Your task to perform on an android device: Add "panasonic triple a" to the cart on amazon.com, then select checkout. Image 0: 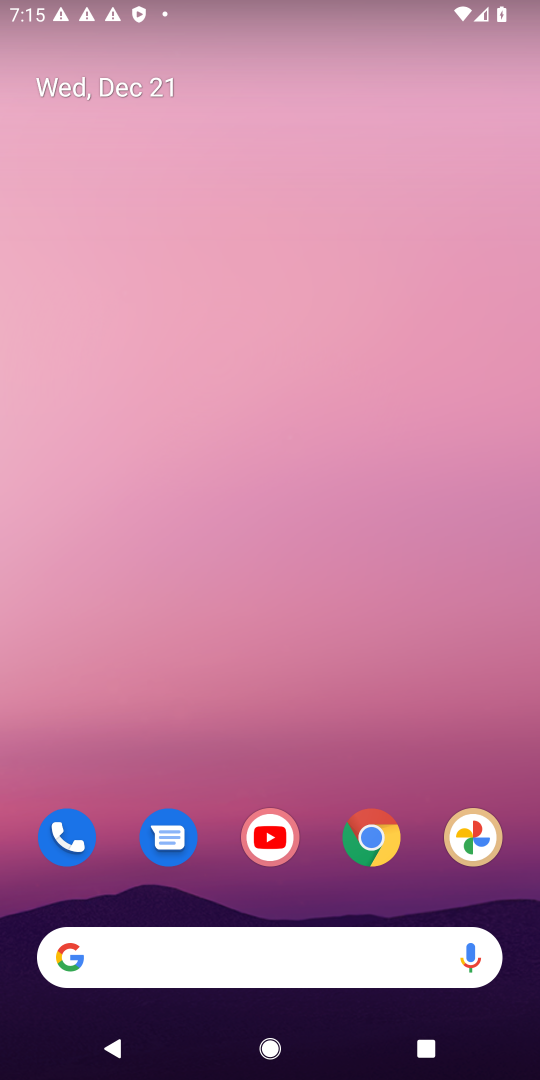
Step 0: drag from (200, 853) to (142, 259)
Your task to perform on an android device: Add "panasonic triple a" to the cart on amazon.com, then select checkout. Image 1: 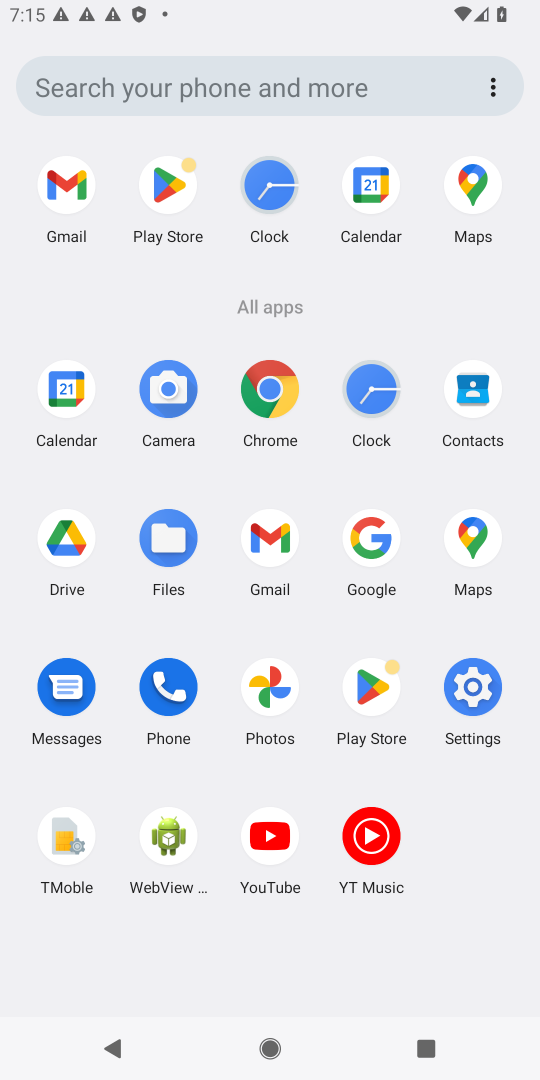
Step 1: click (371, 533)
Your task to perform on an android device: Add "panasonic triple a" to the cart on amazon.com, then select checkout. Image 2: 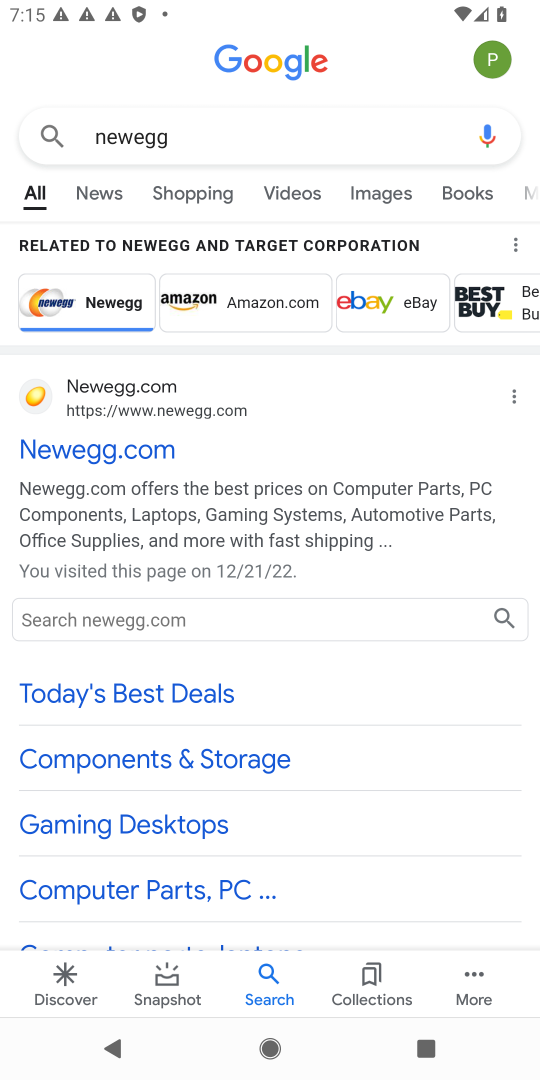
Step 2: click (157, 149)
Your task to perform on an android device: Add "panasonic triple a" to the cart on amazon.com, then select checkout. Image 3: 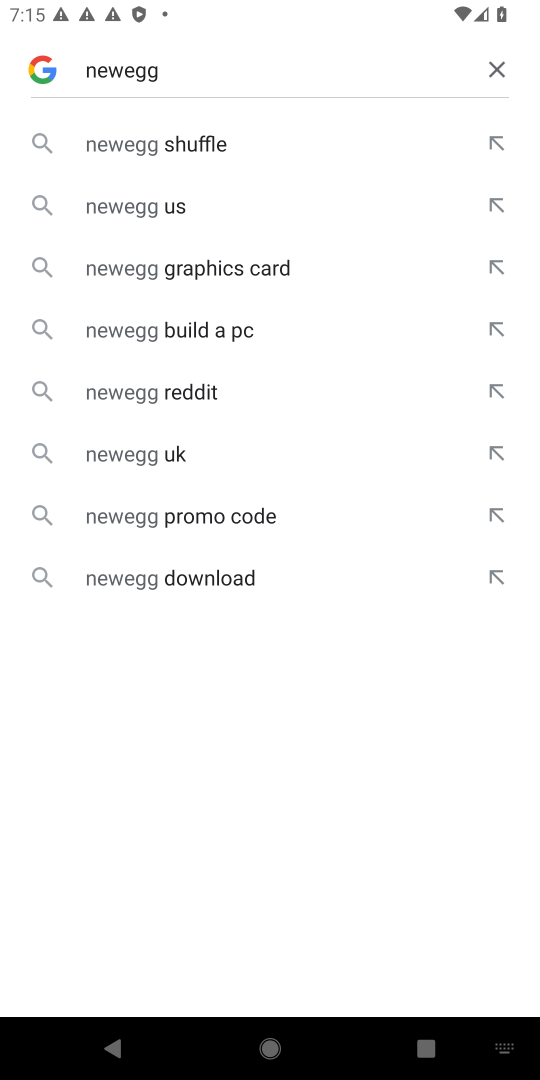
Step 3: click (503, 75)
Your task to perform on an android device: Add "panasonic triple a" to the cart on amazon.com, then select checkout. Image 4: 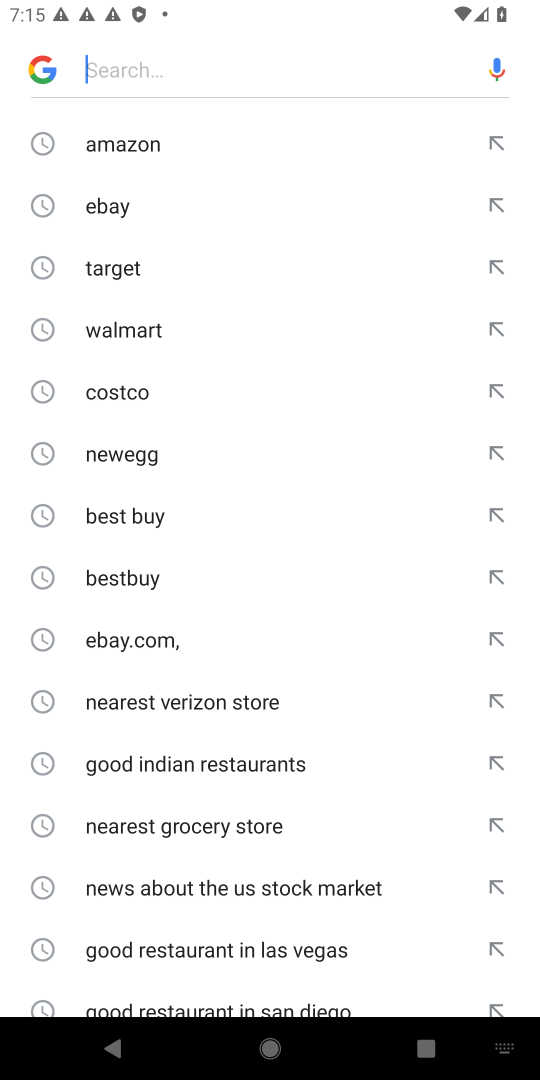
Step 4: click (124, 137)
Your task to perform on an android device: Add "panasonic triple a" to the cart on amazon.com, then select checkout. Image 5: 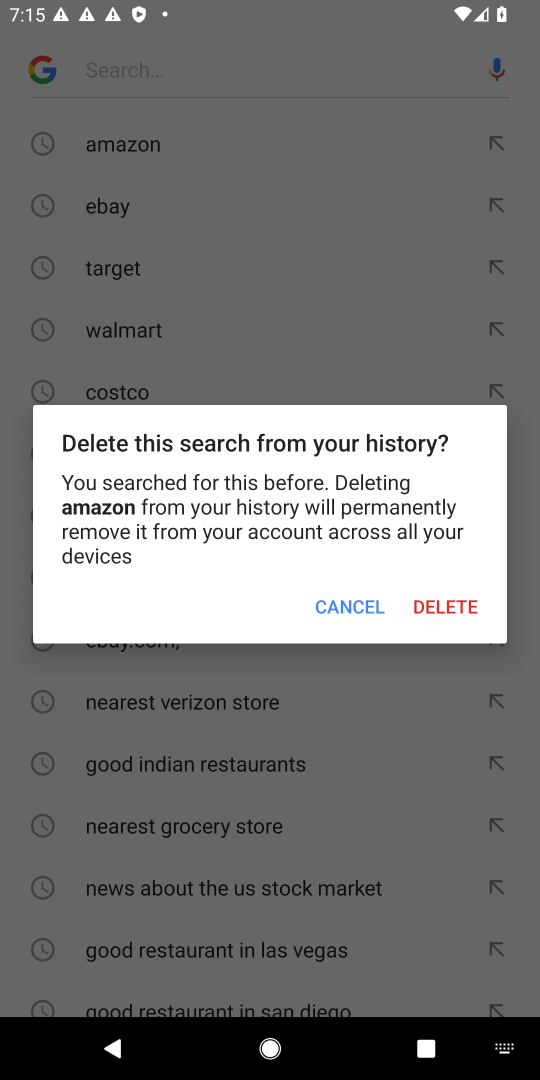
Step 5: click (369, 612)
Your task to perform on an android device: Add "panasonic triple a" to the cart on amazon.com, then select checkout. Image 6: 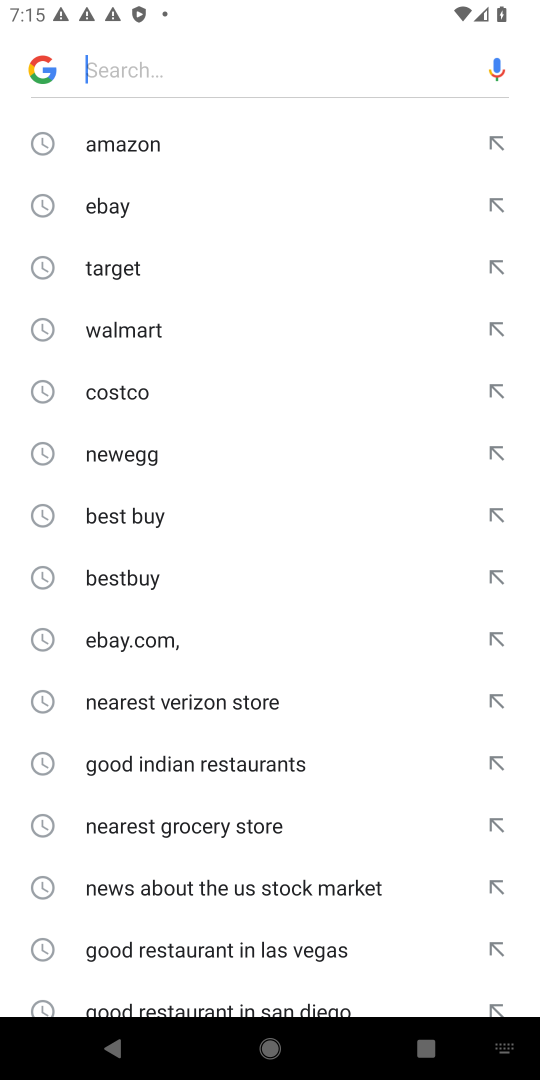
Step 6: click (115, 156)
Your task to perform on an android device: Add "panasonic triple a" to the cart on amazon.com, then select checkout. Image 7: 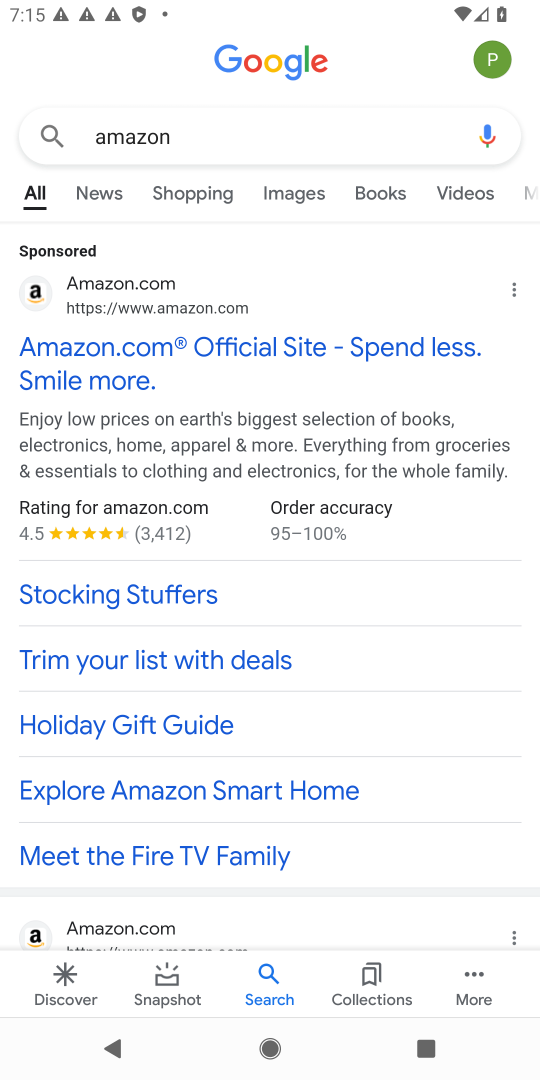
Step 7: click (113, 357)
Your task to perform on an android device: Add "panasonic triple a" to the cart on amazon.com, then select checkout. Image 8: 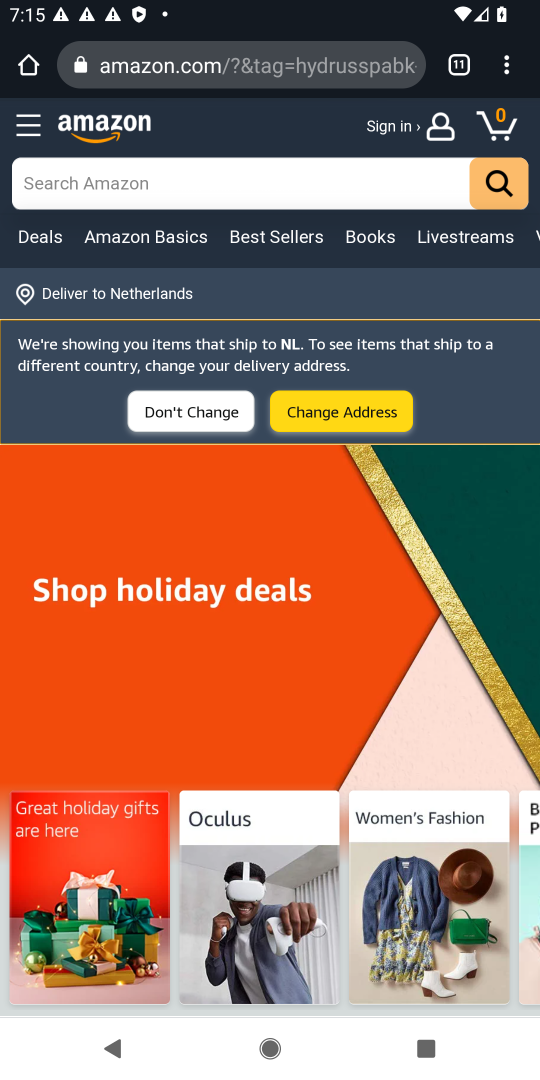
Step 8: click (154, 179)
Your task to perform on an android device: Add "panasonic triple a" to the cart on amazon.com, then select checkout. Image 9: 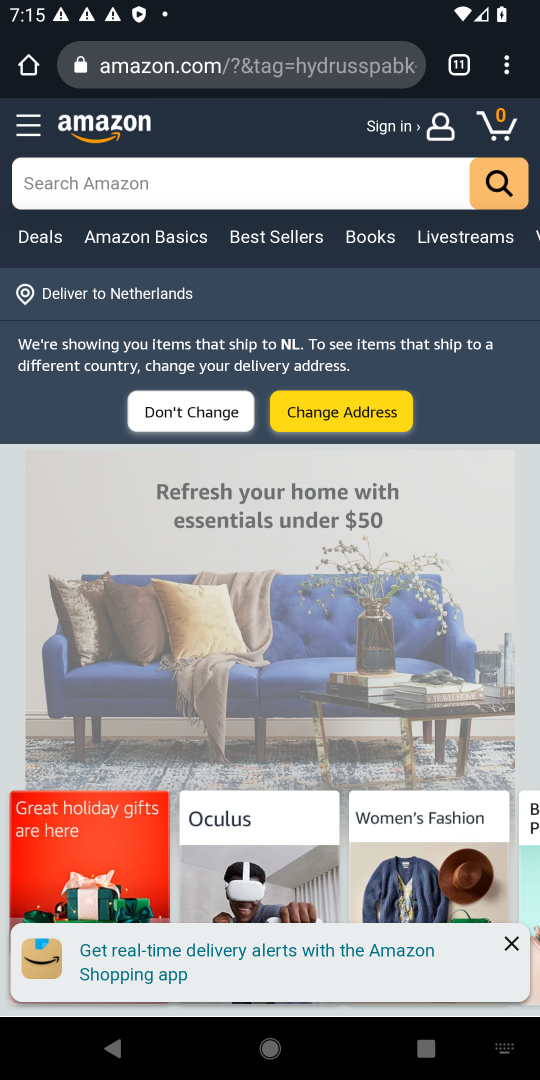
Step 9: type "panasonic triple a"
Your task to perform on an android device: Add "panasonic triple a" to the cart on amazon.com, then select checkout. Image 10: 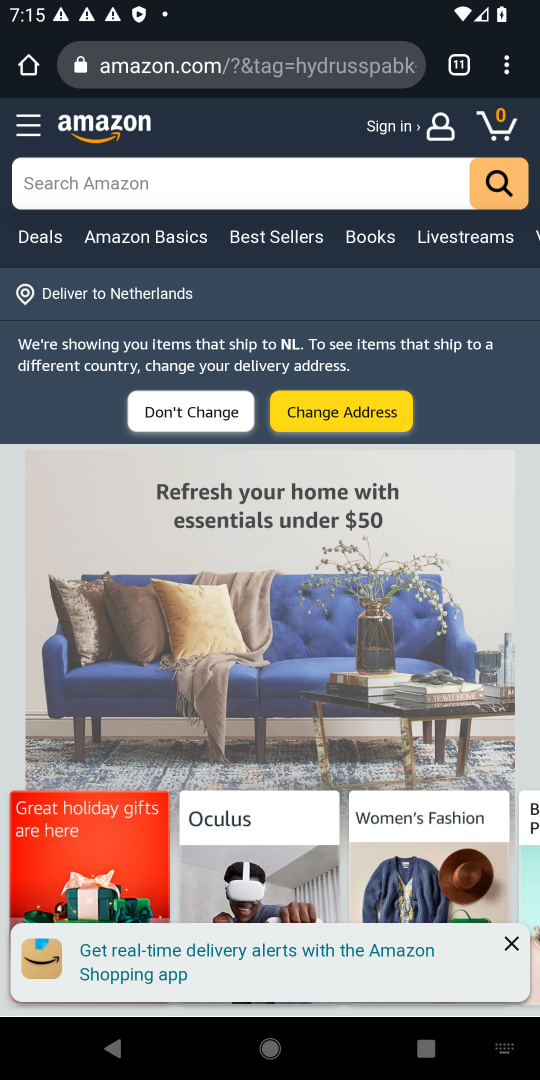
Step 10: click (496, 189)
Your task to perform on an android device: Add "panasonic triple a" to the cart on amazon.com, then select checkout. Image 11: 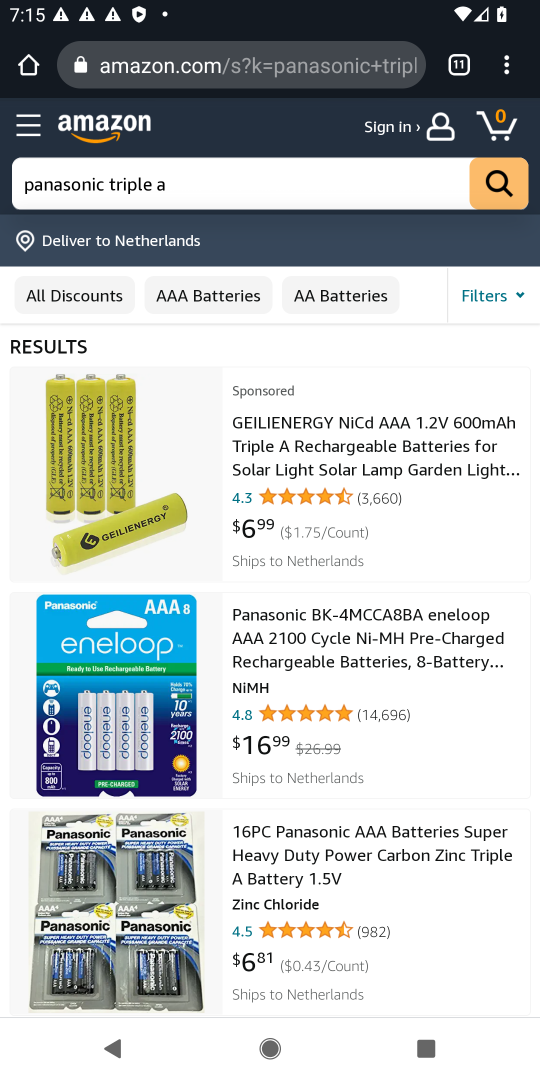
Step 11: click (319, 430)
Your task to perform on an android device: Add "panasonic triple a" to the cart on amazon.com, then select checkout. Image 12: 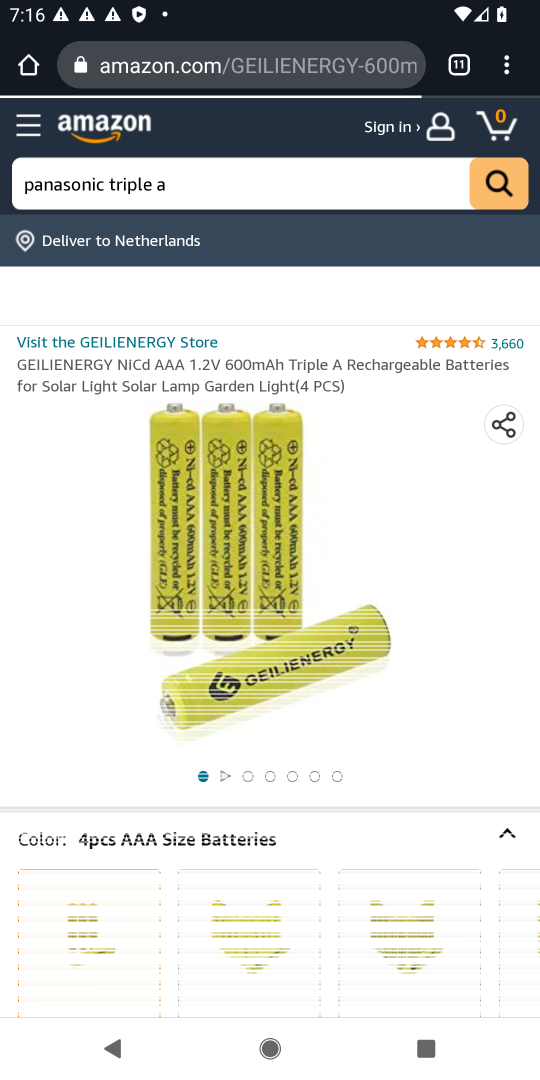
Step 12: drag from (320, 737) to (240, 353)
Your task to perform on an android device: Add "panasonic triple a" to the cart on amazon.com, then select checkout. Image 13: 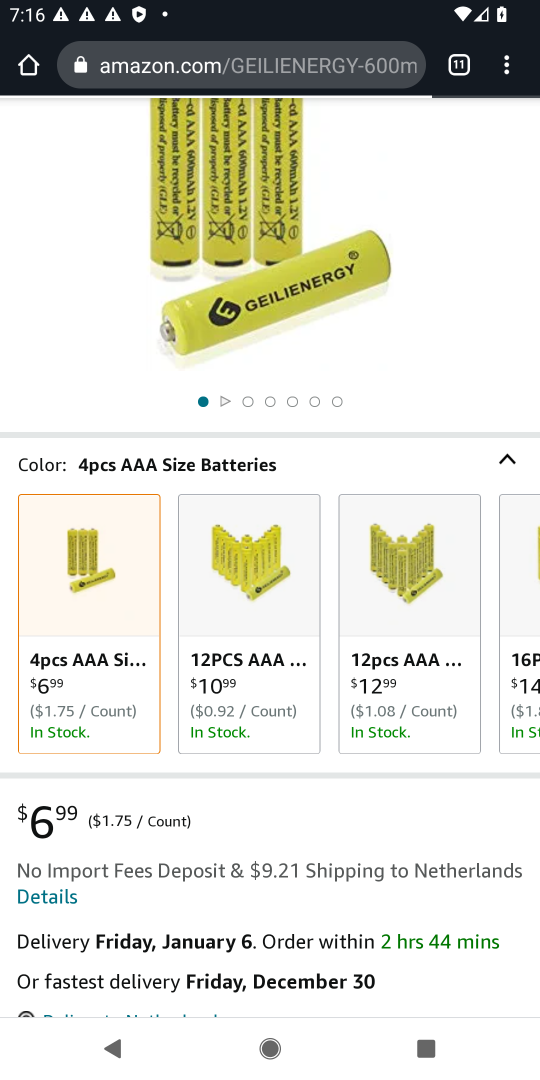
Step 13: drag from (325, 826) to (267, 363)
Your task to perform on an android device: Add "panasonic triple a" to the cart on amazon.com, then select checkout. Image 14: 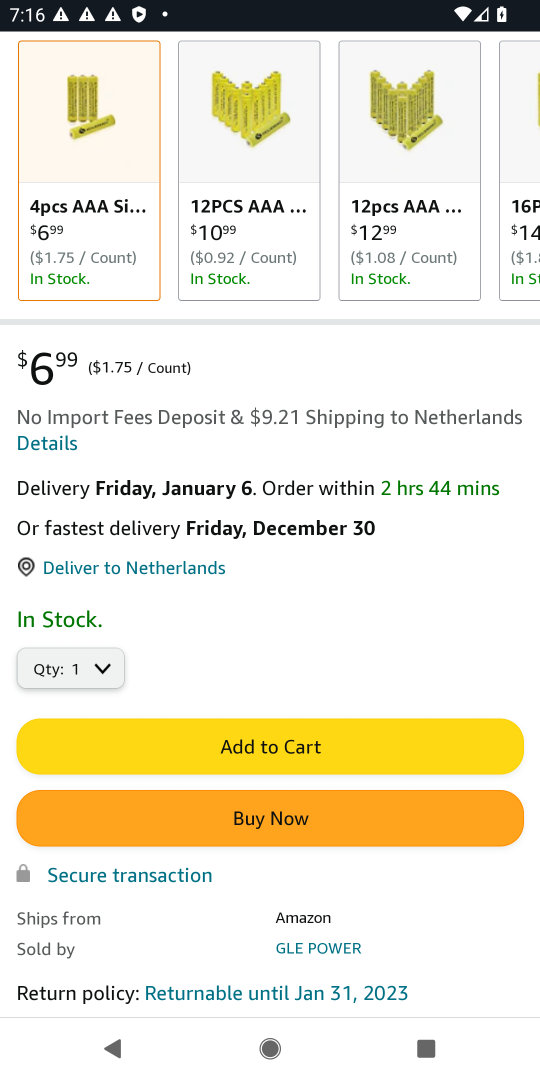
Step 14: click (303, 747)
Your task to perform on an android device: Add "panasonic triple a" to the cart on amazon.com, then select checkout. Image 15: 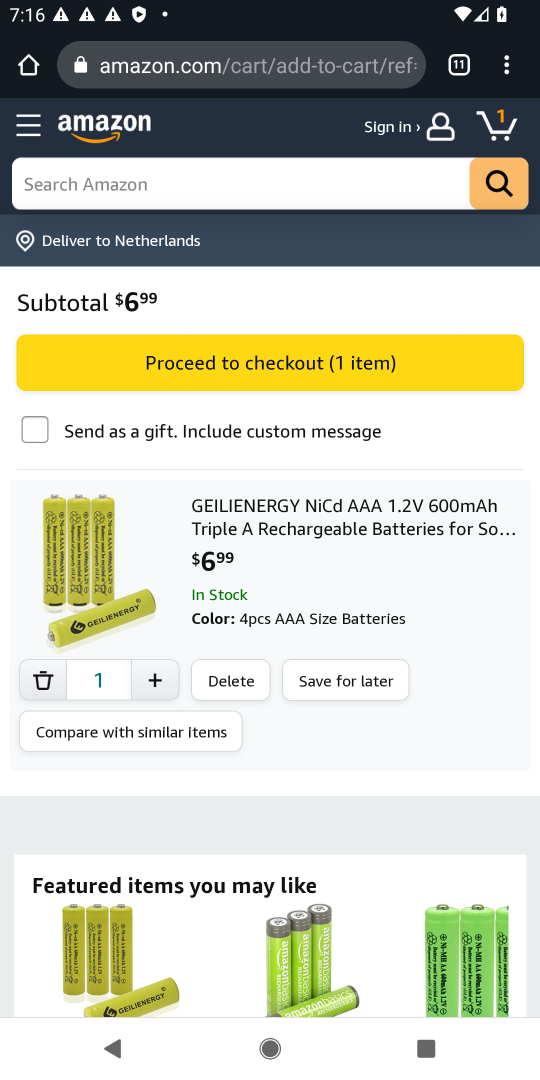
Step 15: click (226, 355)
Your task to perform on an android device: Add "panasonic triple a" to the cart on amazon.com, then select checkout. Image 16: 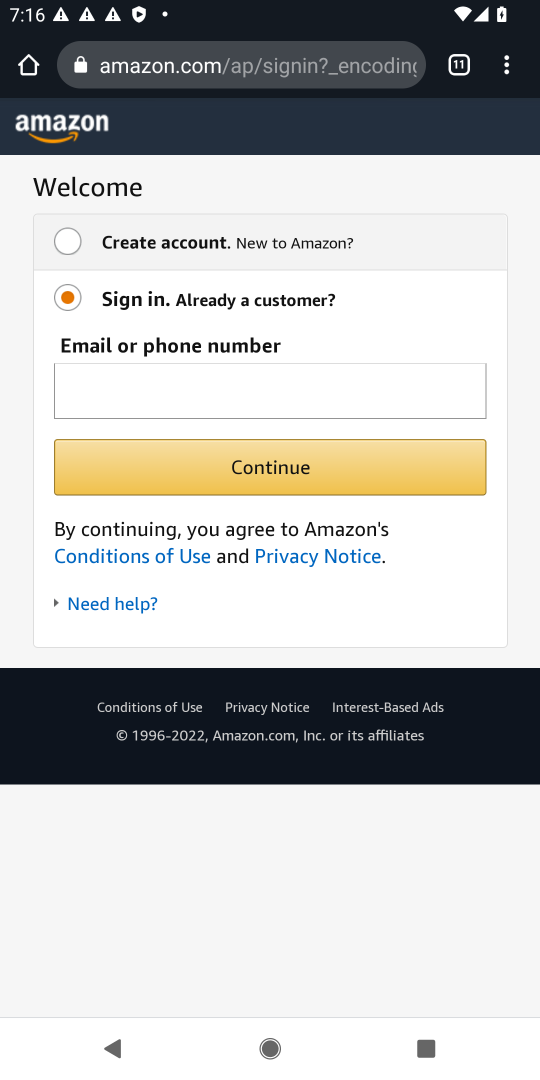
Step 16: task complete